Your task to perform on an android device: open chrome privacy settings Image 0: 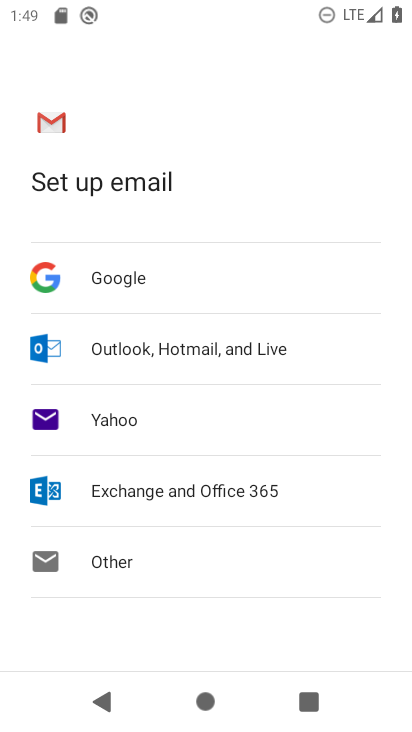
Step 0: press home button
Your task to perform on an android device: open chrome privacy settings Image 1: 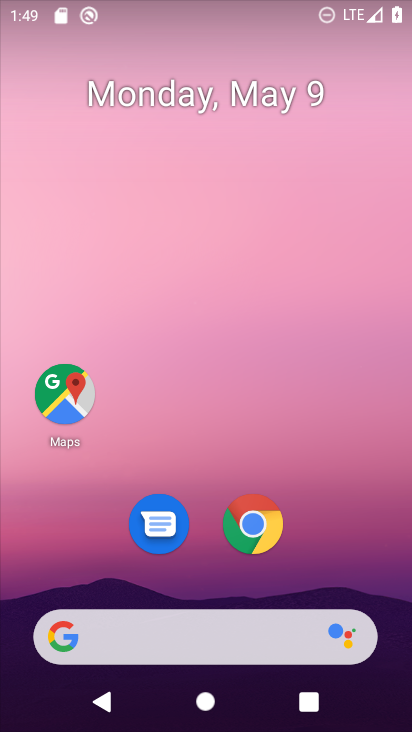
Step 1: click (264, 526)
Your task to perform on an android device: open chrome privacy settings Image 2: 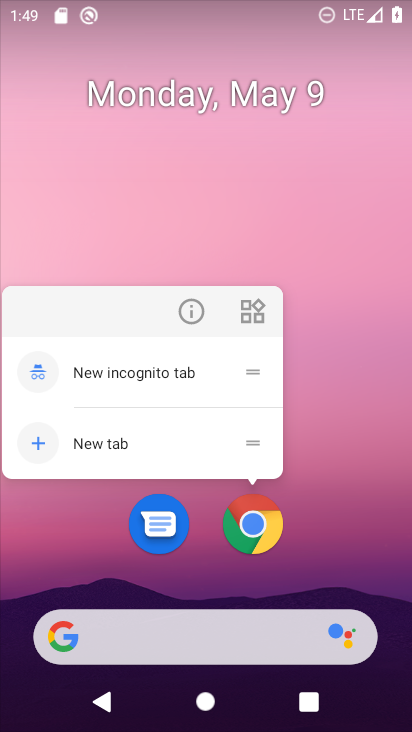
Step 2: click (264, 528)
Your task to perform on an android device: open chrome privacy settings Image 3: 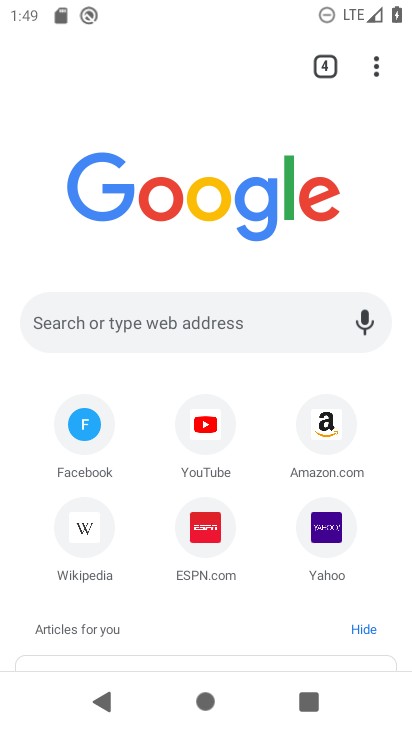
Step 3: click (376, 64)
Your task to perform on an android device: open chrome privacy settings Image 4: 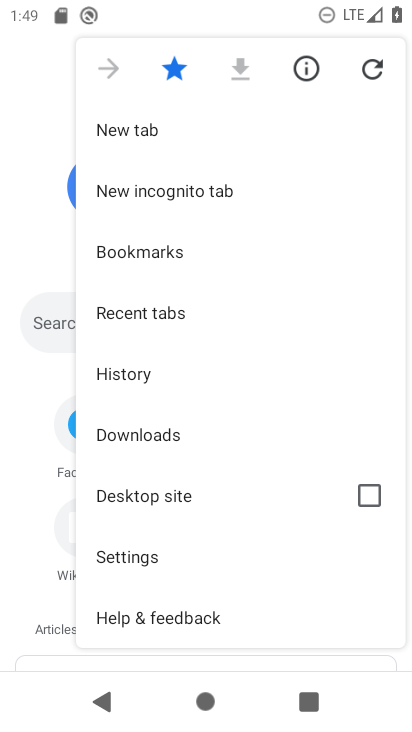
Step 4: click (195, 555)
Your task to perform on an android device: open chrome privacy settings Image 5: 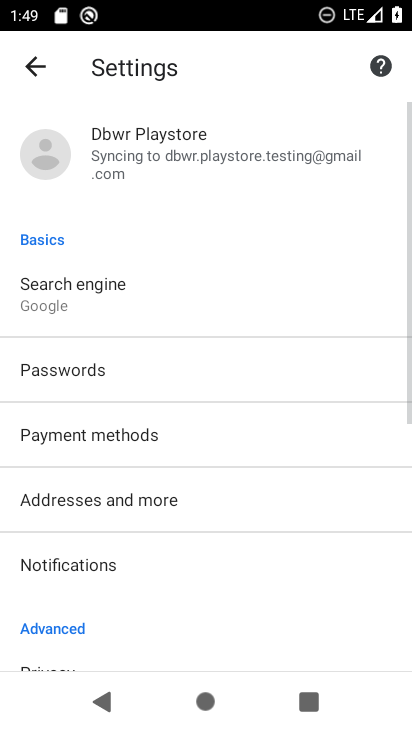
Step 5: drag from (213, 597) to (245, 418)
Your task to perform on an android device: open chrome privacy settings Image 6: 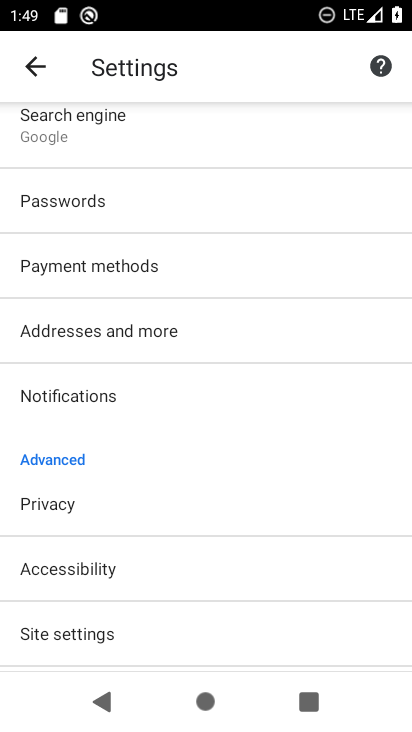
Step 6: click (119, 507)
Your task to perform on an android device: open chrome privacy settings Image 7: 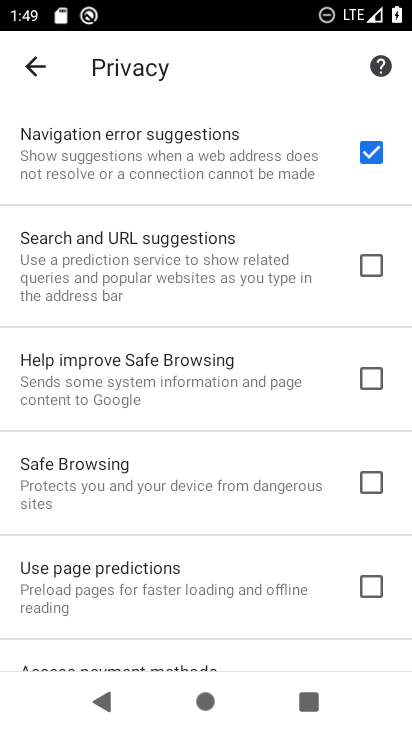
Step 7: task complete